Your task to perform on an android device: change the clock style Image 0: 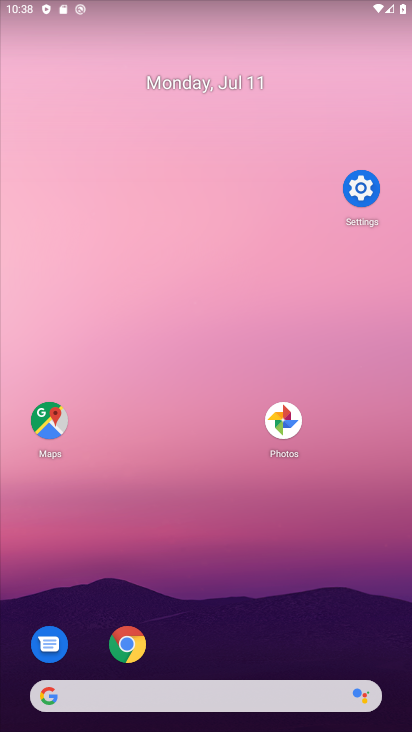
Step 0: drag from (305, 635) to (225, 152)
Your task to perform on an android device: change the clock style Image 1: 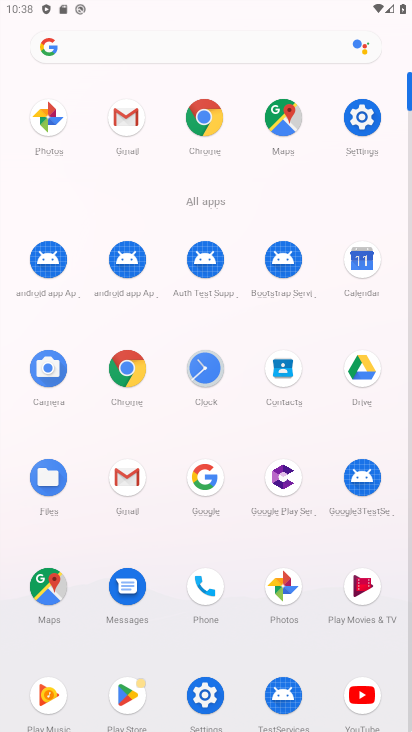
Step 1: drag from (190, 366) to (107, 226)
Your task to perform on an android device: change the clock style Image 2: 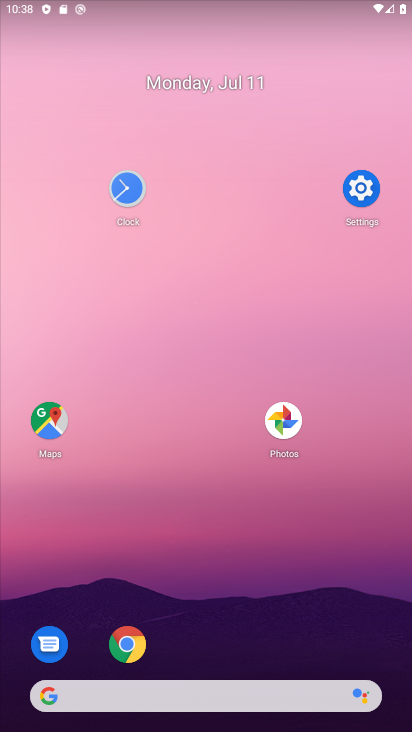
Step 2: click (129, 189)
Your task to perform on an android device: change the clock style Image 3: 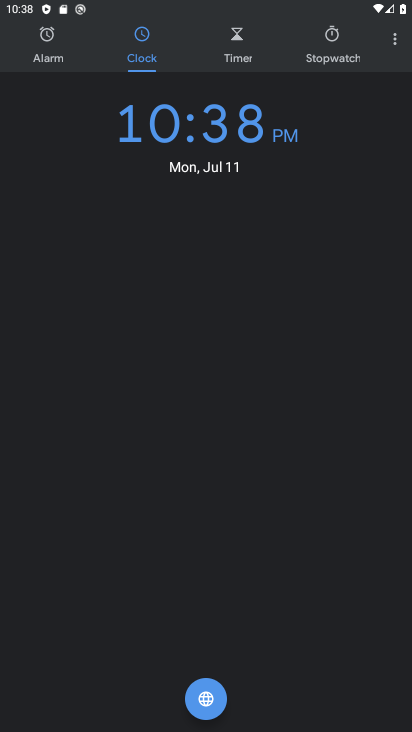
Step 3: click (397, 38)
Your task to perform on an android device: change the clock style Image 4: 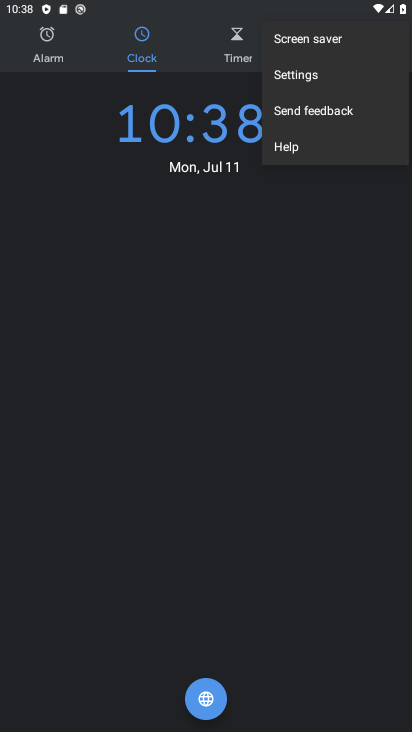
Step 4: click (347, 81)
Your task to perform on an android device: change the clock style Image 5: 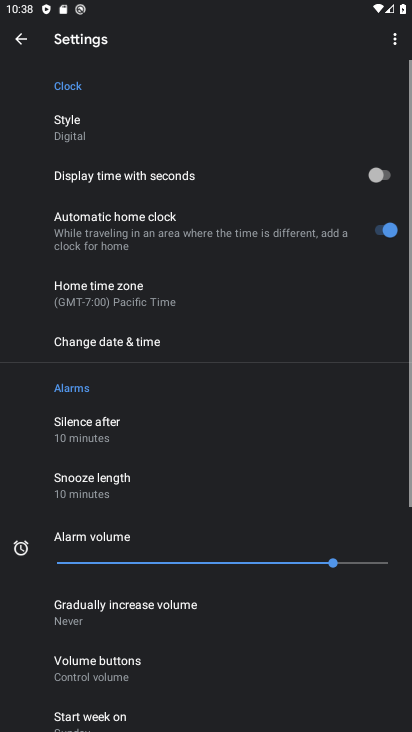
Step 5: click (123, 121)
Your task to perform on an android device: change the clock style Image 6: 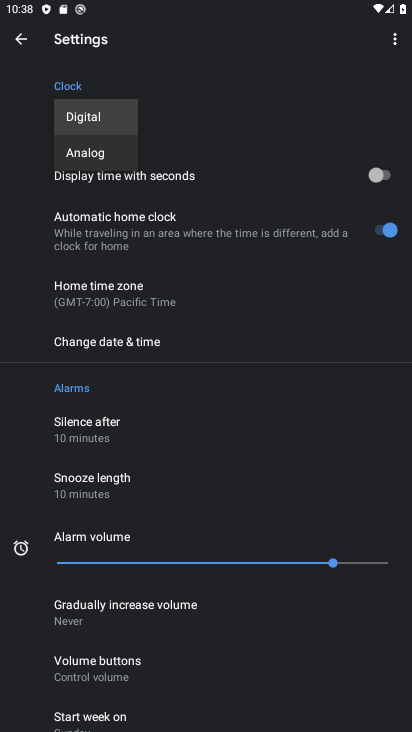
Step 6: click (131, 145)
Your task to perform on an android device: change the clock style Image 7: 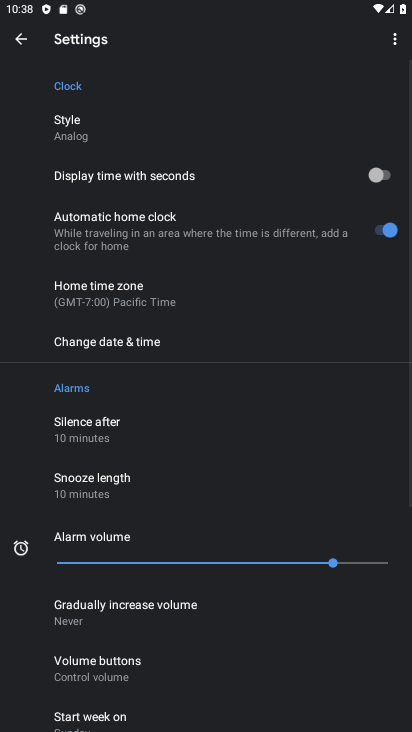
Step 7: task complete